Your task to perform on an android device: Open calendar and show me the second week of next month Image 0: 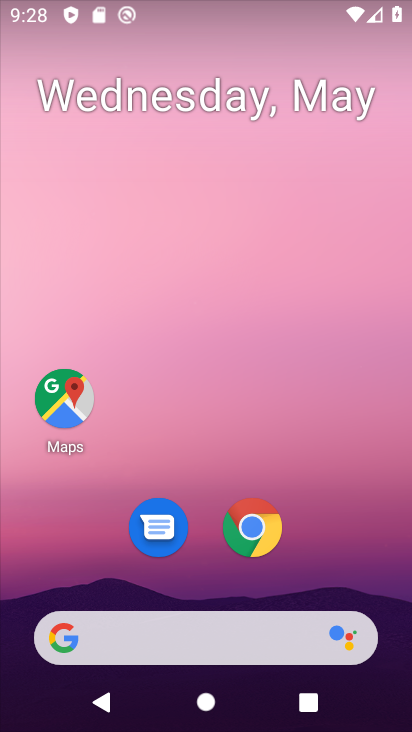
Step 0: drag from (203, 579) to (224, 103)
Your task to perform on an android device: Open calendar and show me the second week of next month Image 1: 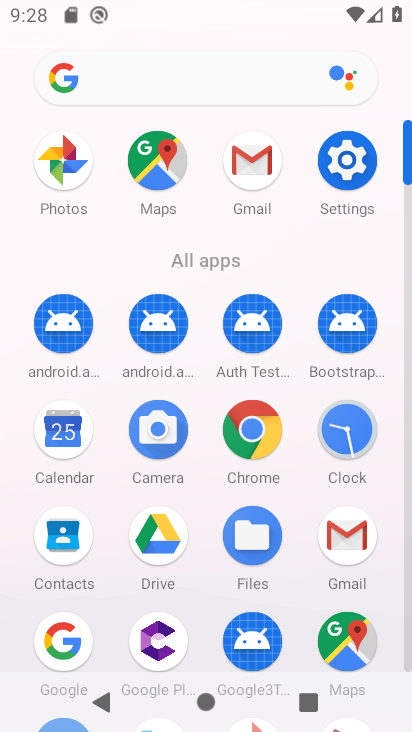
Step 1: click (62, 443)
Your task to perform on an android device: Open calendar and show me the second week of next month Image 2: 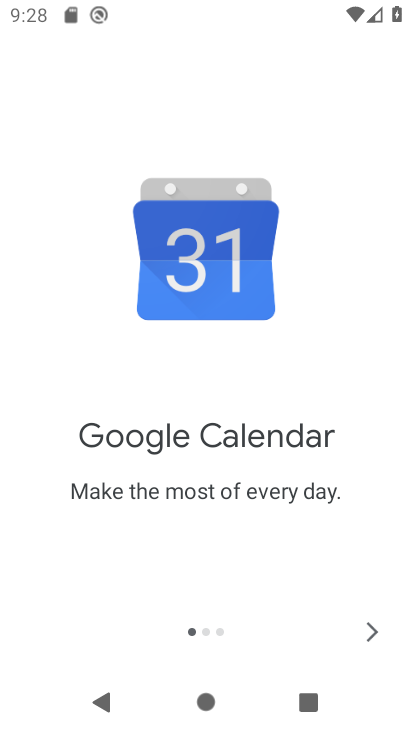
Step 2: click (374, 623)
Your task to perform on an android device: Open calendar and show me the second week of next month Image 3: 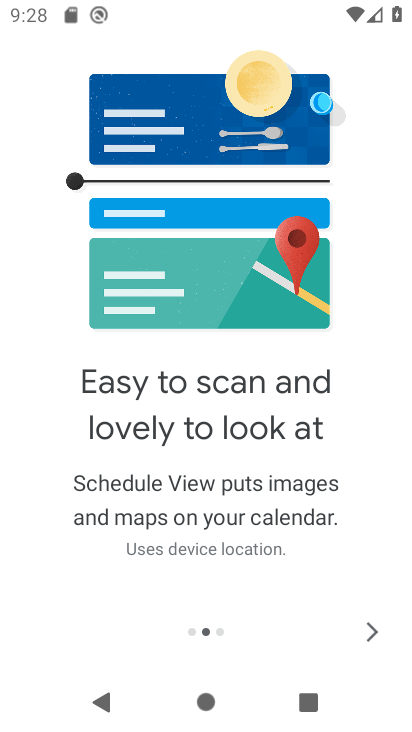
Step 3: click (374, 623)
Your task to perform on an android device: Open calendar and show me the second week of next month Image 4: 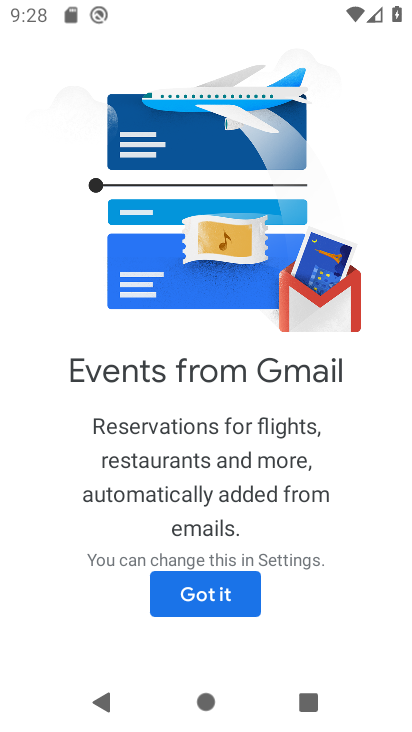
Step 4: click (233, 598)
Your task to perform on an android device: Open calendar and show me the second week of next month Image 5: 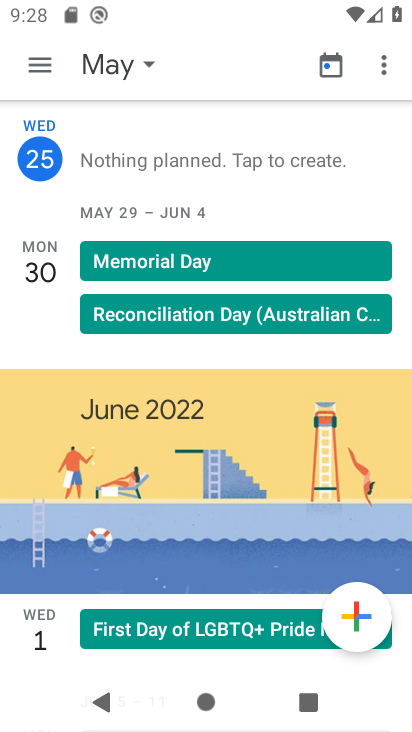
Step 5: click (129, 70)
Your task to perform on an android device: Open calendar and show me the second week of next month Image 6: 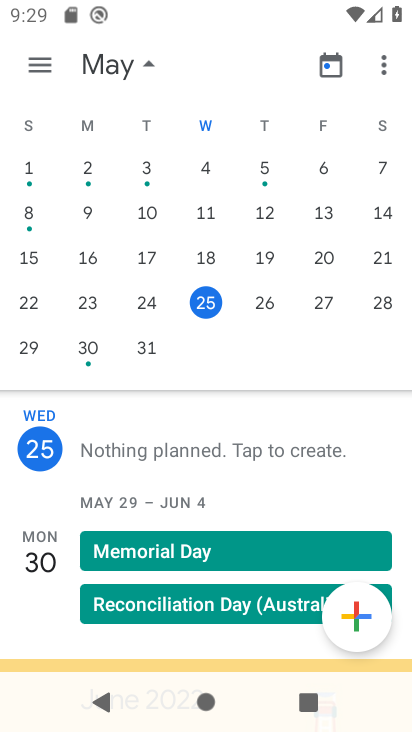
Step 6: drag from (369, 361) to (23, 334)
Your task to perform on an android device: Open calendar and show me the second week of next month Image 7: 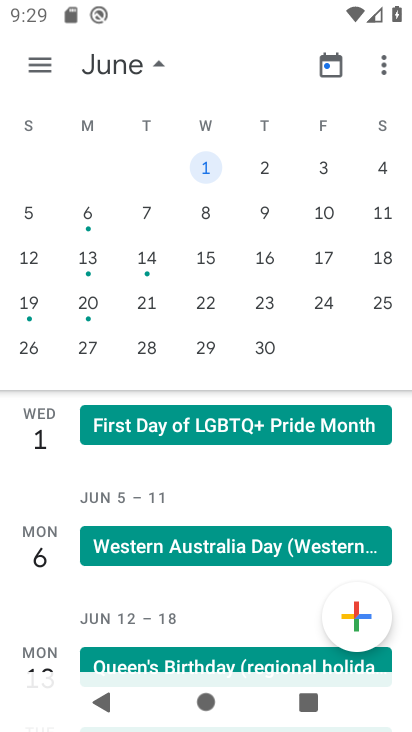
Step 7: click (266, 205)
Your task to perform on an android device: Open calendar and show me the second week of next month Image 8: 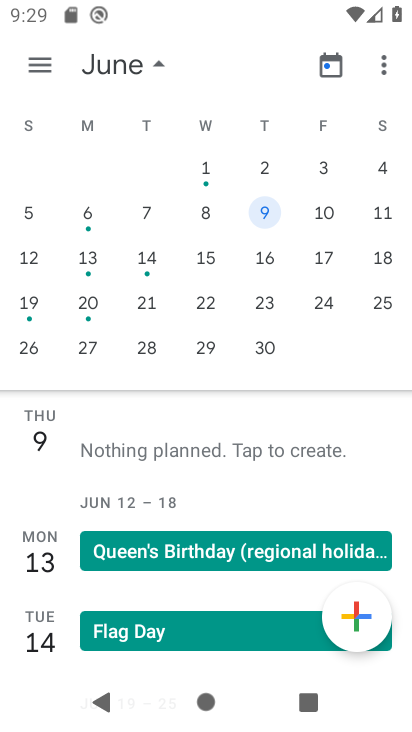
Step 8: task complete